Your task to perform on an android device: Open network settings Image 0: 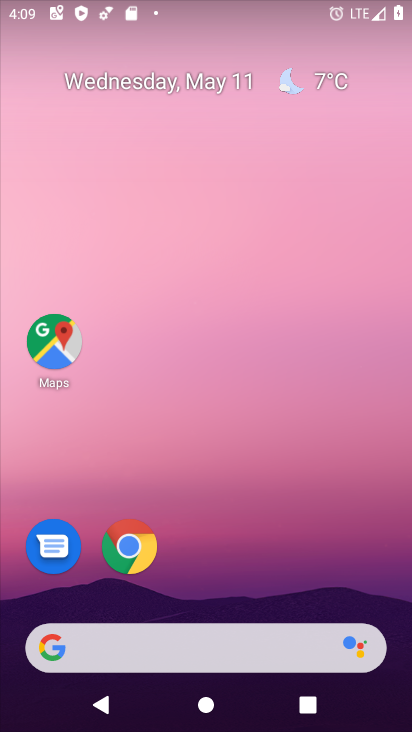
Step 0: drag from (335, 619) to (395, 4)
Your task to perform on an android device: Open network settings Image 1: 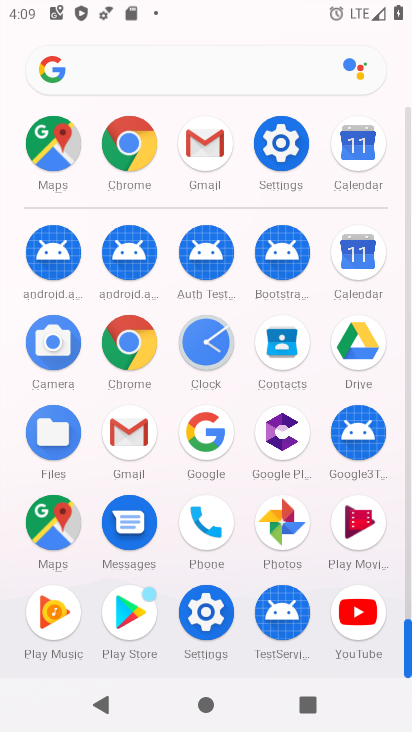
Step 1: click (266, 162)
Your task to perform on an android device: Open network settings Image 2: 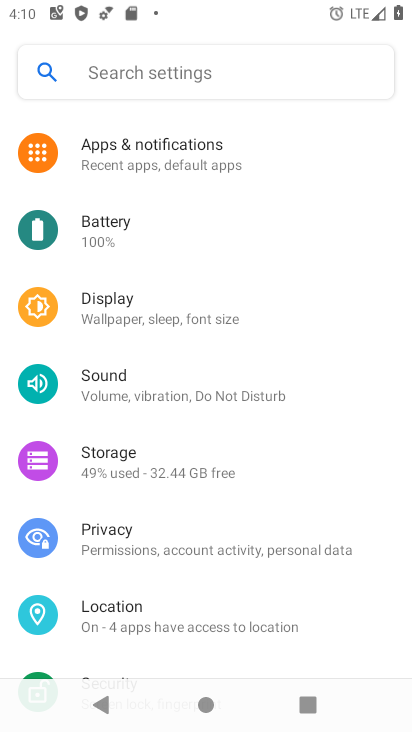
Step 2: drag from (241, 240) to (278, 698)
Your task to perform on an android device: Open network settings Image 3: 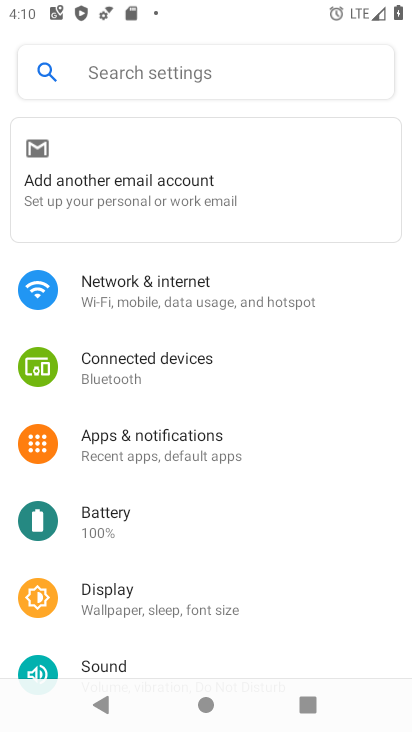
Step 3: click (181, 305)
Your task to perform on an android device: Open network settings Image 4: 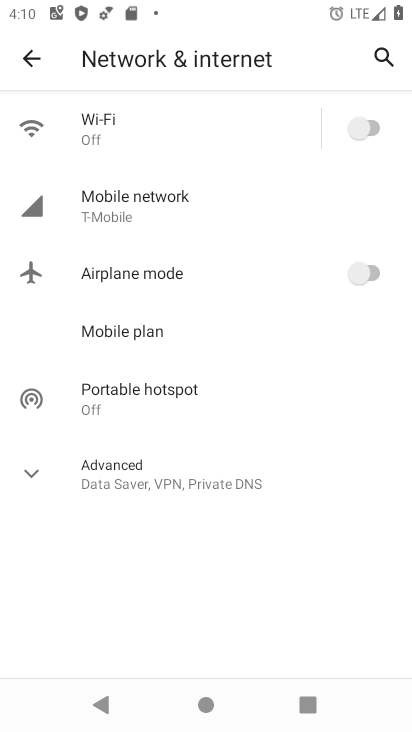
Step 4: task complete